Your task to perform on an android device: turn off wifi Image 0: 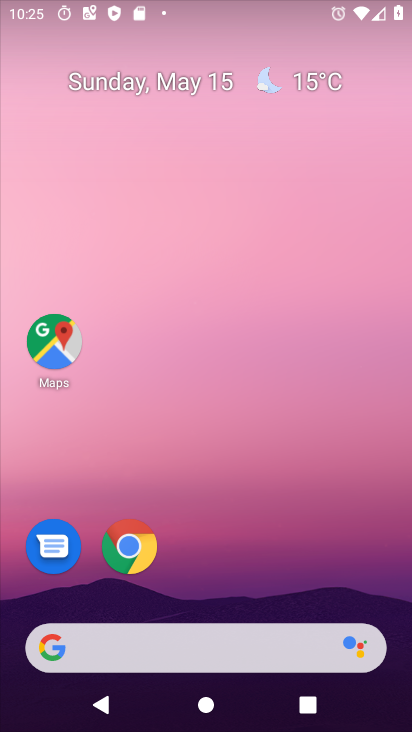
Step 0: drag from (247, 644) to (120, 195)
Your task to perform on an android device: turn off wifi Image 1: 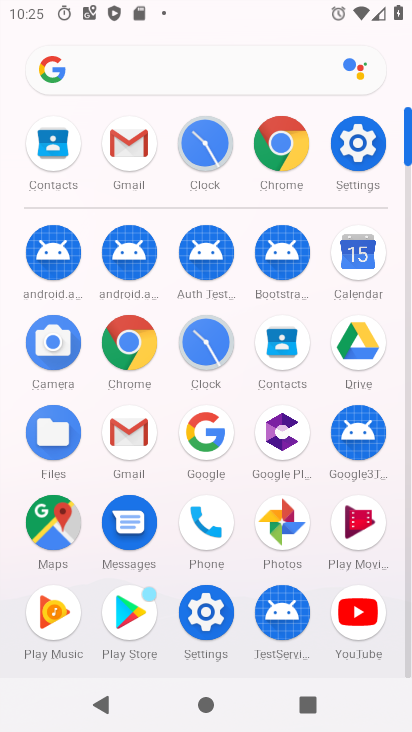
Step 1: click (280, 146)
Your task to perform on an android device: turn off wifi Image 2: 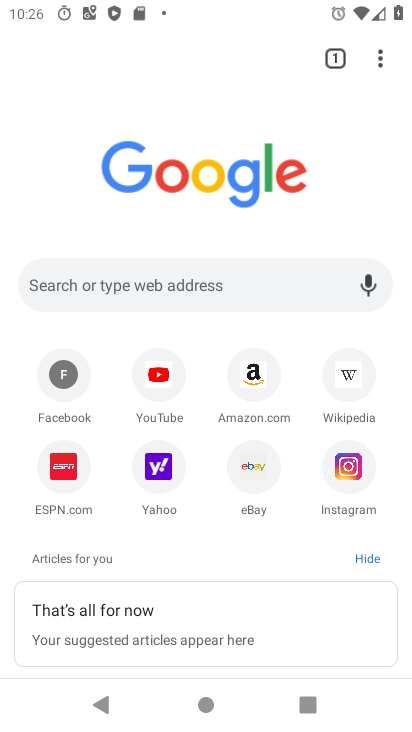
Step 2: press back button
Your task to perform on an android device: turn off wifi Image 3: 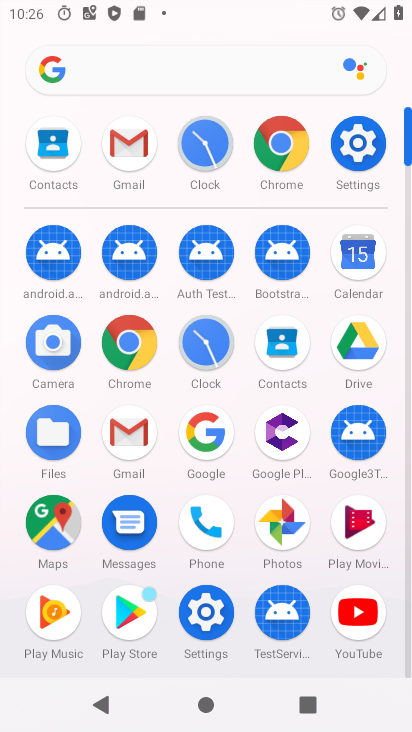
Step 3: click (360, 156)
Your task to perform on an android device: turn off wifi Image 4: 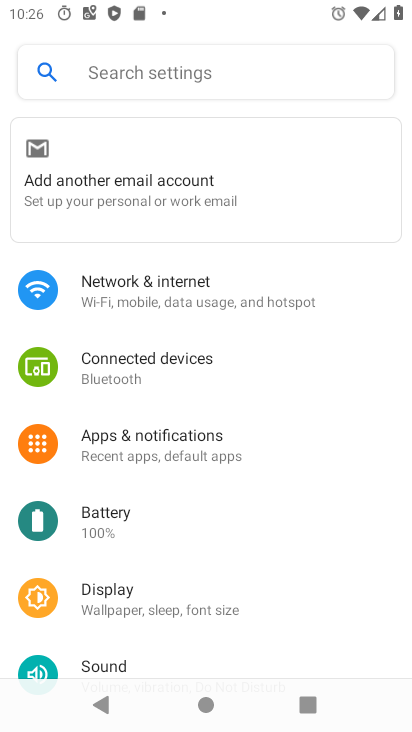
Step 4: click (130, 297)
Your task to perform on an android device: turn off wifi Image 5: 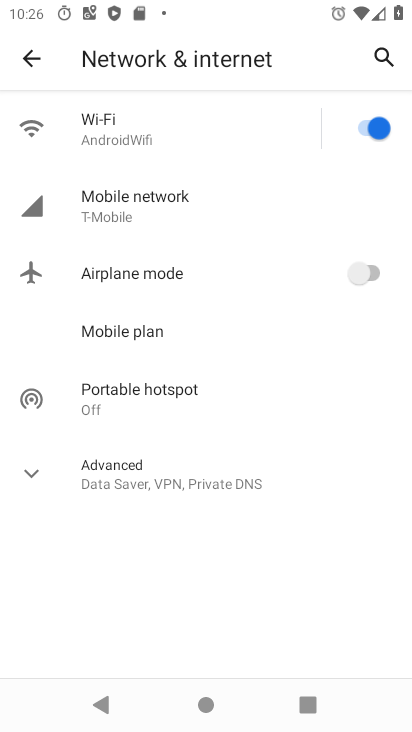
Step 5: click (371, 127)
Your task to perform on an android device: turn off wifi Image 6: 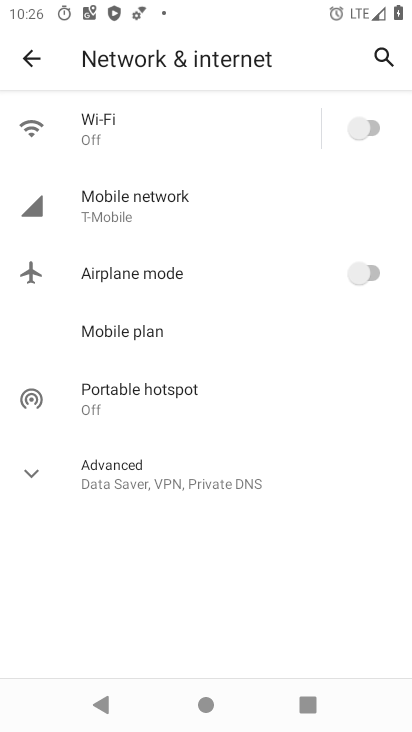
Step 6: task complete